Your task to perform on an android device: Toggle the flashlight Image 0: 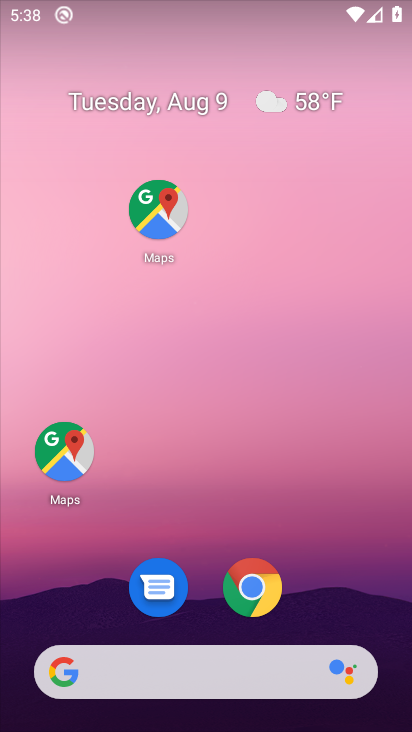
Step 0: drag from (207, 381) to (207, 216)
Your task to perform on an android device: Toggle the flashlight Image 1: 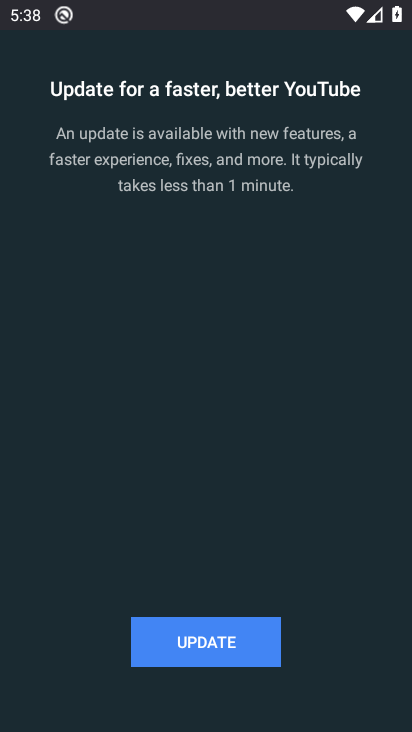
Step 1: task complete